Your task to perform on an android device: choose inbox layout in the gmail app Image 0: 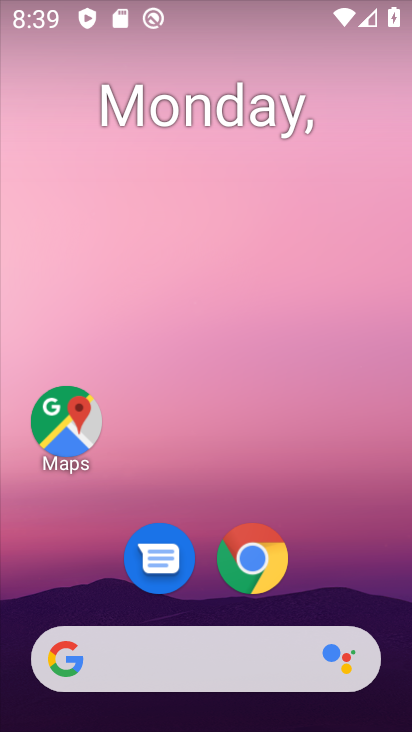
Step 0: drag from (338, 565) to (290, 121)
Your task to perform on an android device: choose inbox layout in the gmail app Image 1: 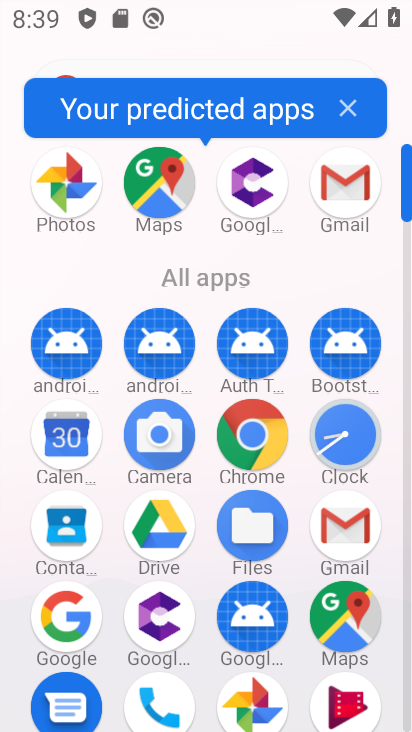
Step 1: click (345, 519)
Your task to perform on an android device: choose inbox layout in the gmail app Image 2: 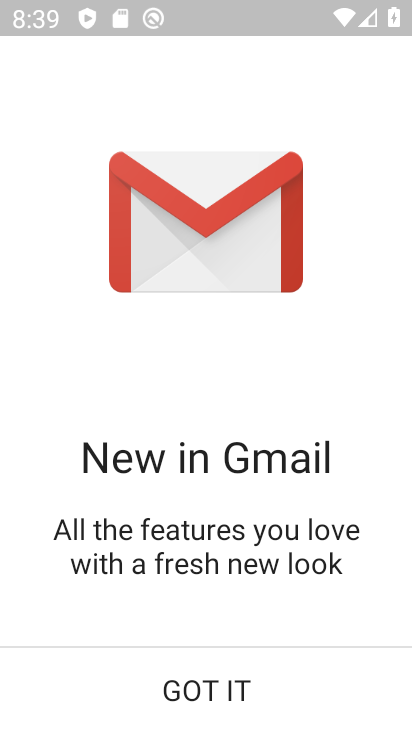
Step 2: click (194, 674)
Your task to perform on an android device: choose inbox layout in the gmail app Image 3: 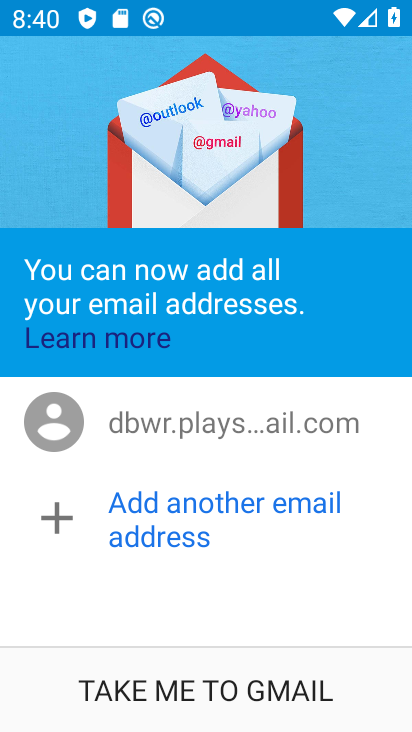
Step 3: click (166, 697)
Your task to perform on an android device: choose inbox layout in the gmail app Image 4: 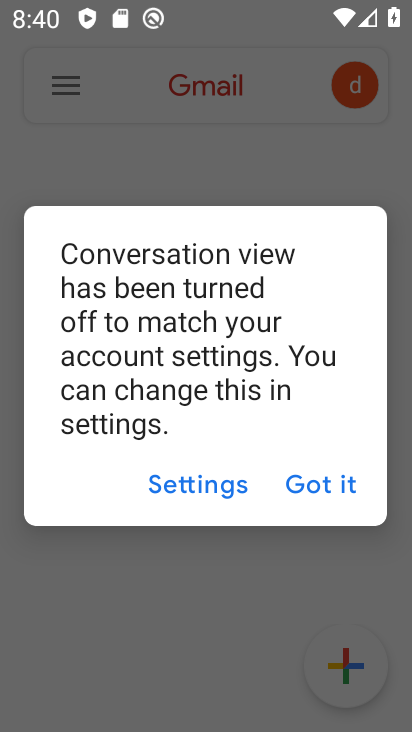
Step 4: click (331, 479)
Your task to perform on an android device: choose inbox layout in the gmail app Image 5: 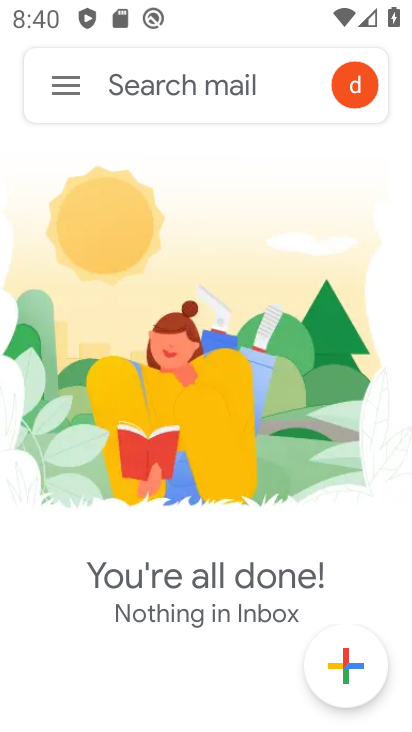
Step 5: click (64, 82)
Your task to perform on an android device: choose inbox layout in the gmail app Image 6: 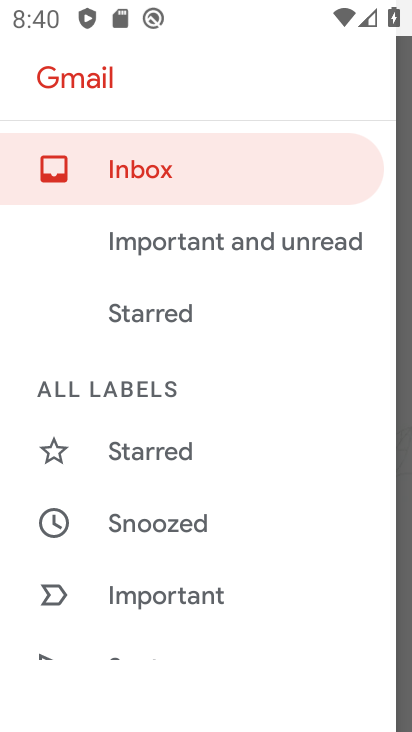
Step 6: drag from (256, 557) to (219, 164)
Your task to perform on an android device: choose inbox layout in the gmail app Image 7: 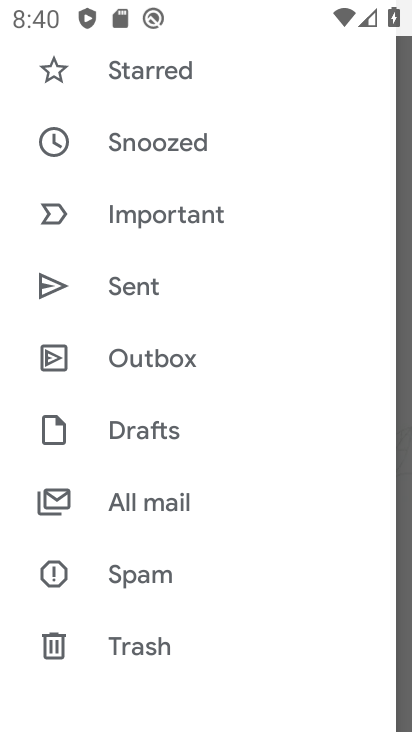
Step 7: drag from (264, 555) to (268, 136)
Your task to perform on an android device: choose inbox layout in the gmail app Image 8: 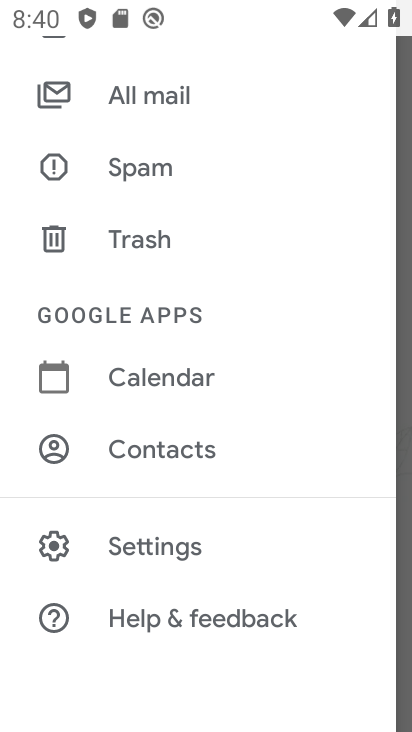
Step 8: click (161, 540)
Your task to perform on an android device: choose inbox layout in the gmail app Image 9: 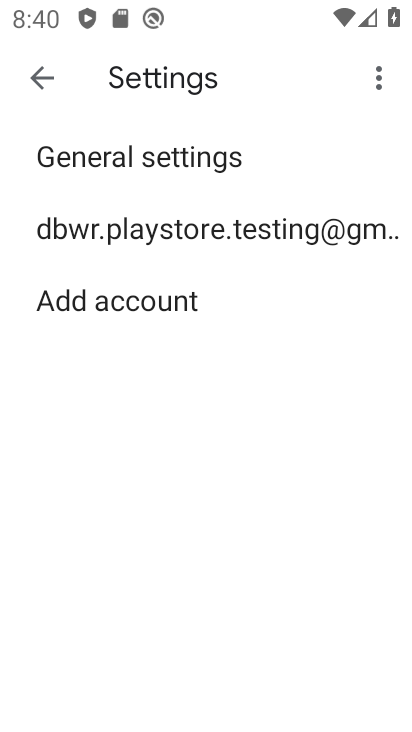
Step 9: click (156, 234)
Your task to perform on an android device: choose inbox layout in the gmail app Image 10: 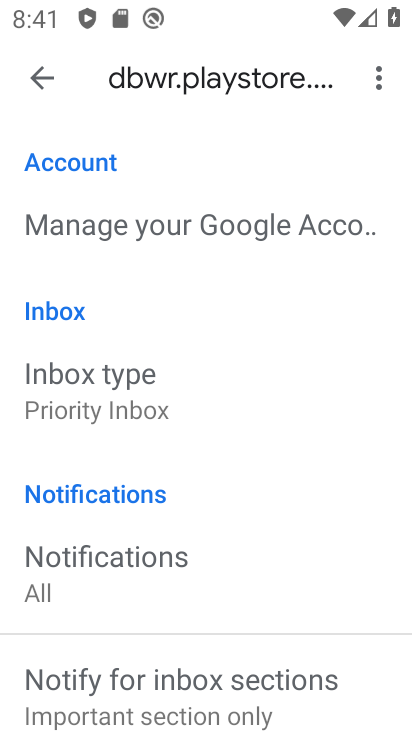
Step 10: click (130, 415)
Your task to perform on an android device: choose inbox layout in the gmail app Image 11: 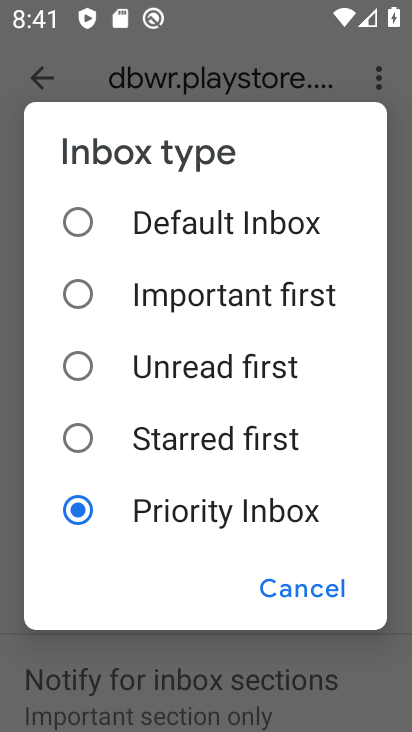
Step 11: click (207, 364)
Your task to perform on an android device: choose inbox layout in the gmail app Image 12: 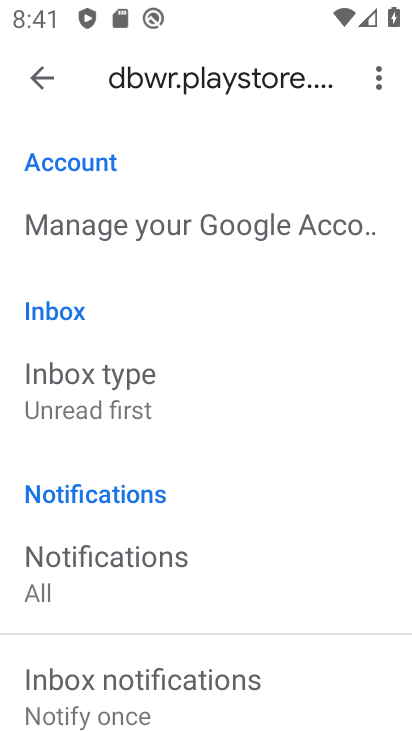
Step 12: task complete